Your task to perform on an android device: snooze an email in the gmail app Image 0: 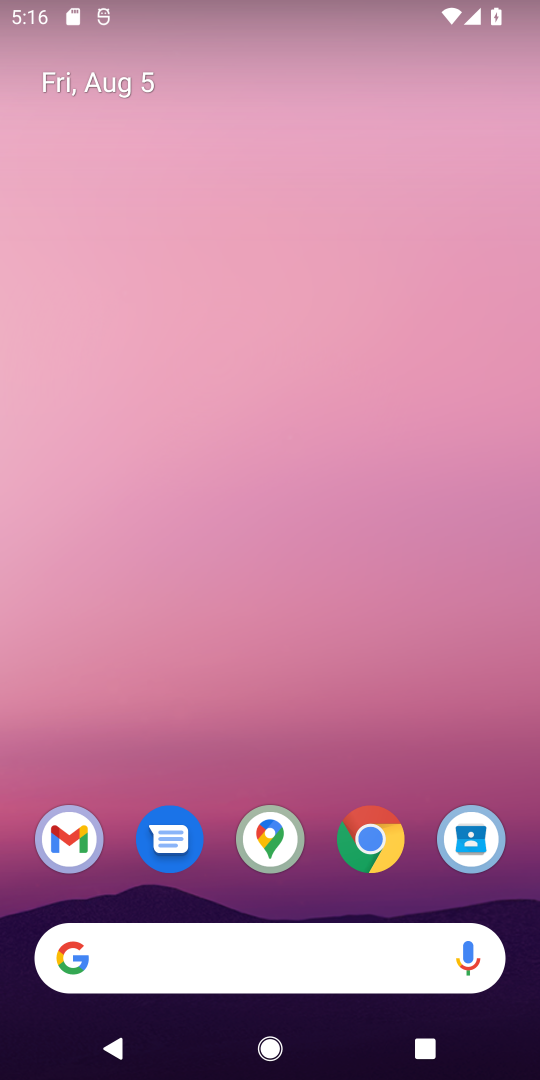
Step 0: click (66, 831)
Your task to perform on an android device: snooze an email in the gmail app Image 1: 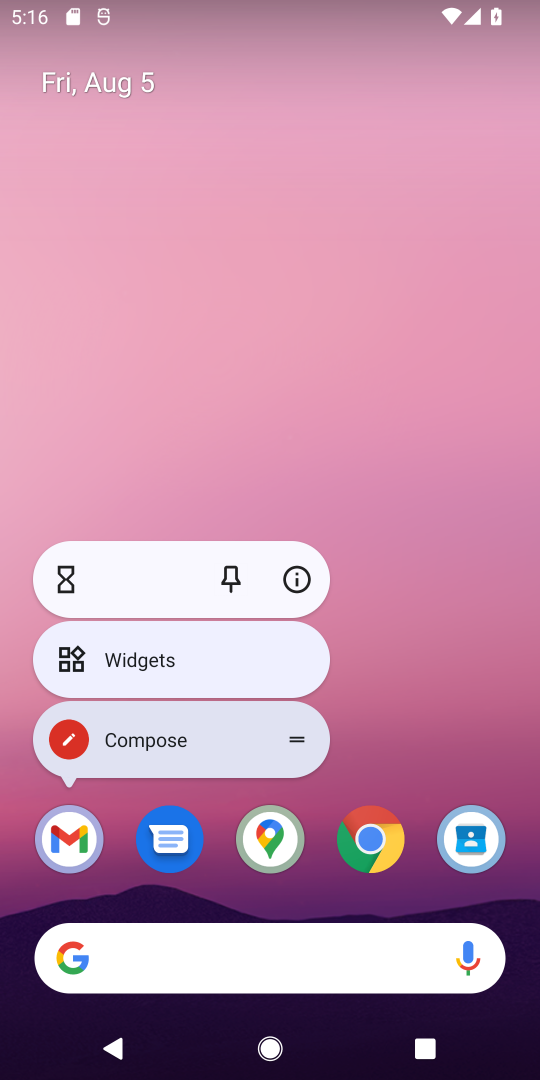
Step 1: click (66, 831)
Your task to perform on an android device: snooze an email in the gmail app Image 2: 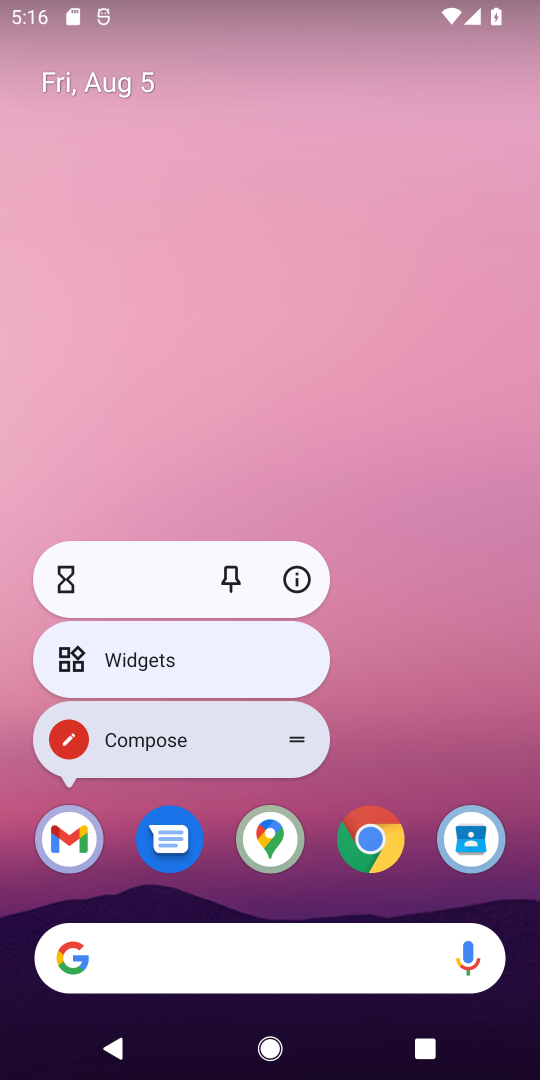
Step 2: click (66, 831)
Your task to perform on an android device: snooze an email in the gmail app Image 3: 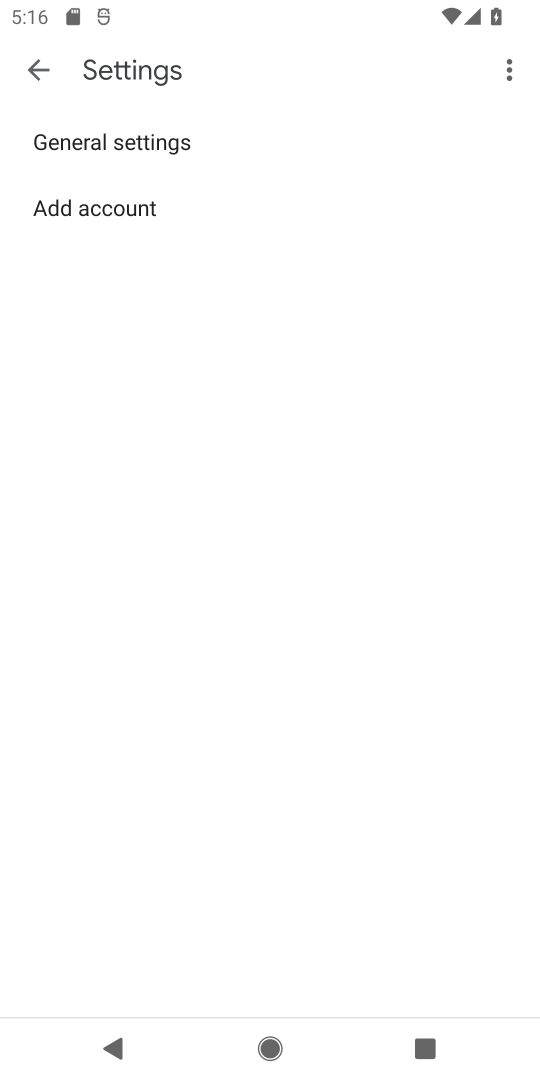
Step 3: click (38, 74)
Your task to perform on an android device: snooze an email in the gmail app Image 4: 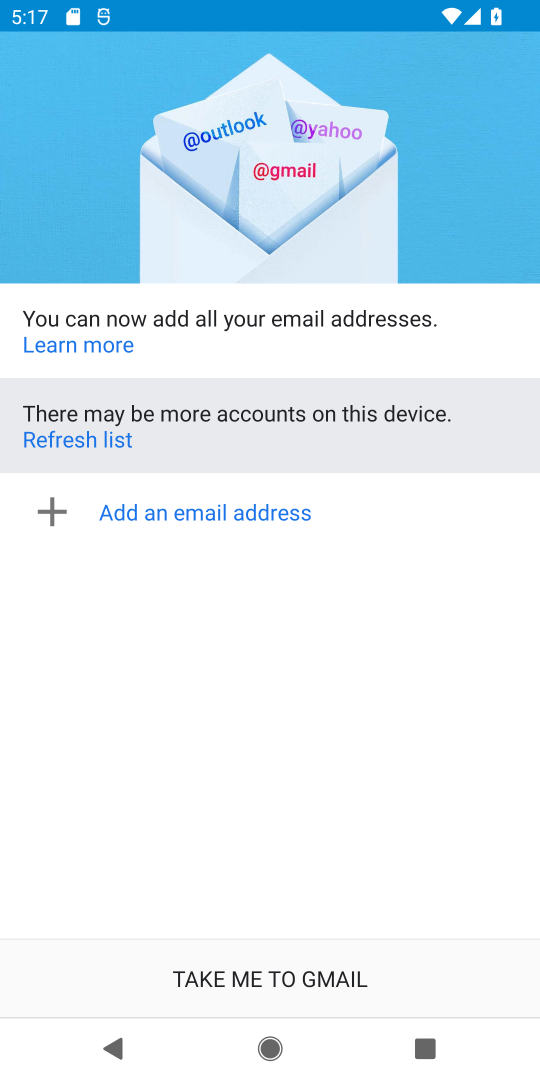
Step 4: task complete